Your task to perform on an android device: Open calendar and show me the third week of next month Image 0: 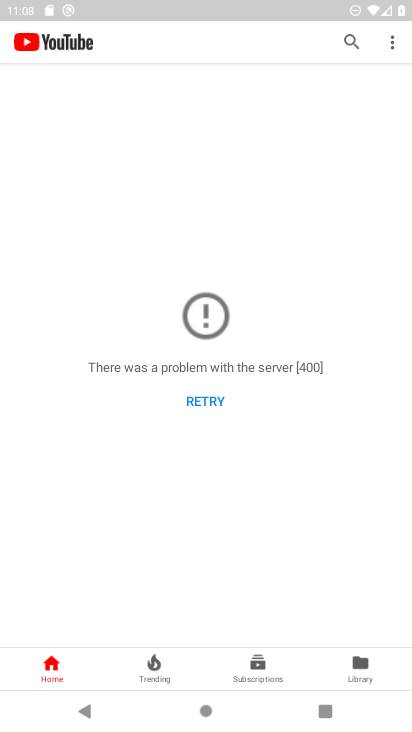
Step 0: press home button
Your task to perform on an android device: Open calendar and show me the third week of next month Image 1: 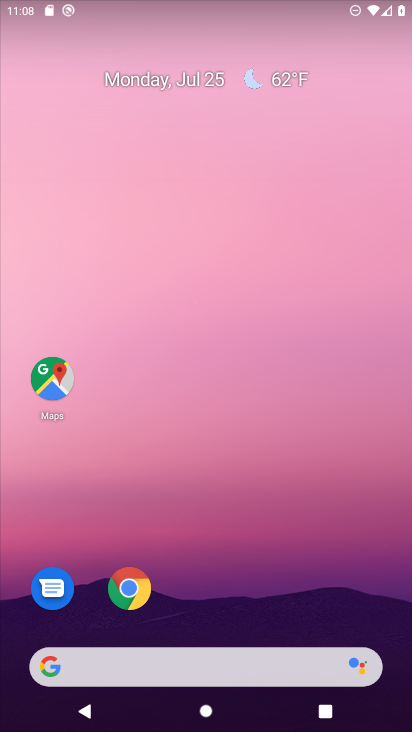
Step 1: drag from (107, 409) to (282, 116)
Your task to perform on an android device: Open calendar and show me the third week of next month Image 2: 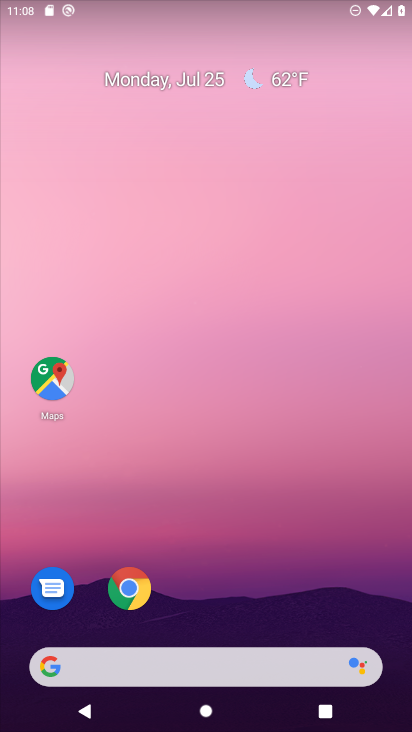
Step 2: drag from (197, 152) to (211, 96)
Your task to perform on an android device: Open calendar and show me the third week of next month Image 3: 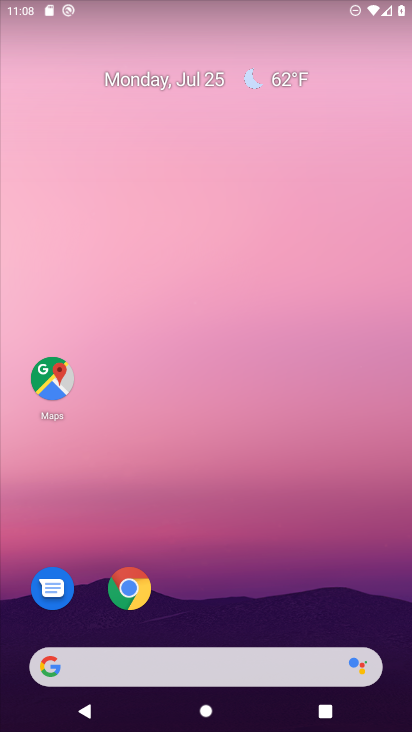
Step 3: drag from (40, 565) to (295, 104)
Your task to perform on an android device: Open calendar and show me the third week of next month Image 4: 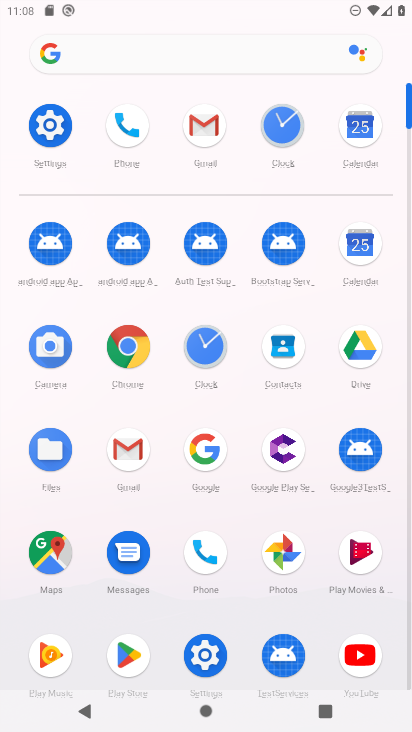
Step 4: click (366, 136)
Your task to perform on an android device: Open calendar and show me the third week of next month Image 5: 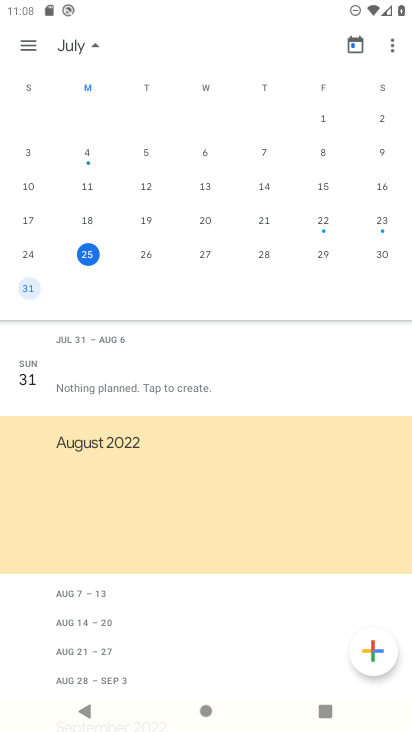
Step 5: drag from (401, 167) to (75, 76)
Your task to perform on an android device: Open calendar and show me the third week of next month Image 6: 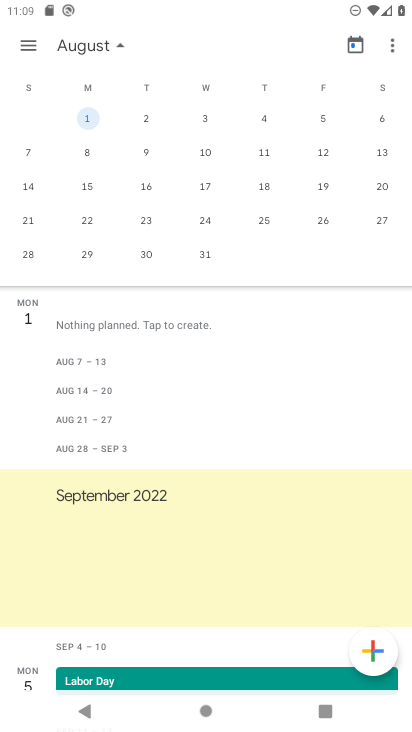
Step 6: click (85, 146)
Your task to perform on an android device: Open calendar and show me the third week of next month Image 7: 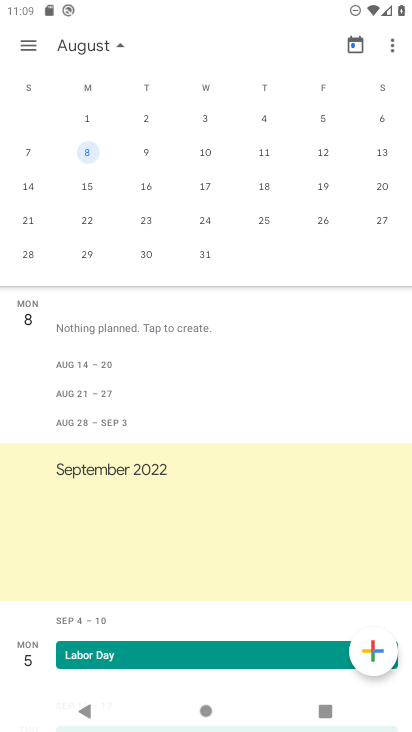
Step 7: click (147, 154)
Your task to perform on an android device: Open calendar and show me the third week of next month Image 8: 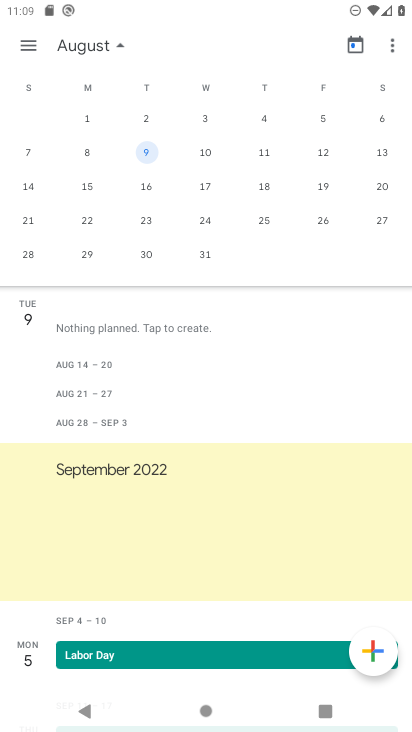
Step 8: click (201, 157)
Your task to perform on an android device: Open calendar and show me the third week of next month Image 9: 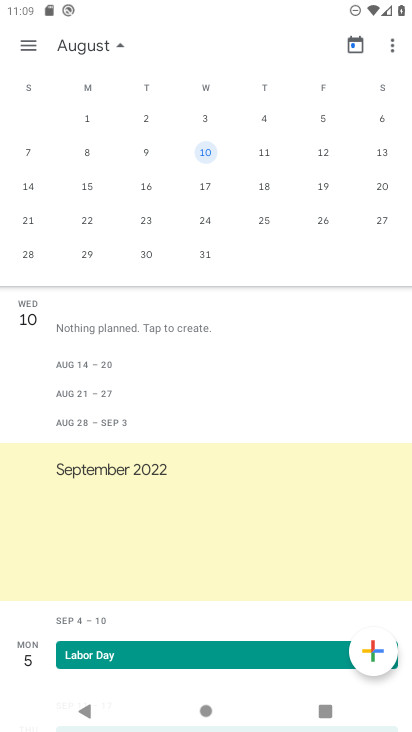
Step 9: click (266, 149)
Your task to perform on an android device: Open calendar and show me the third week of next month Image 10: 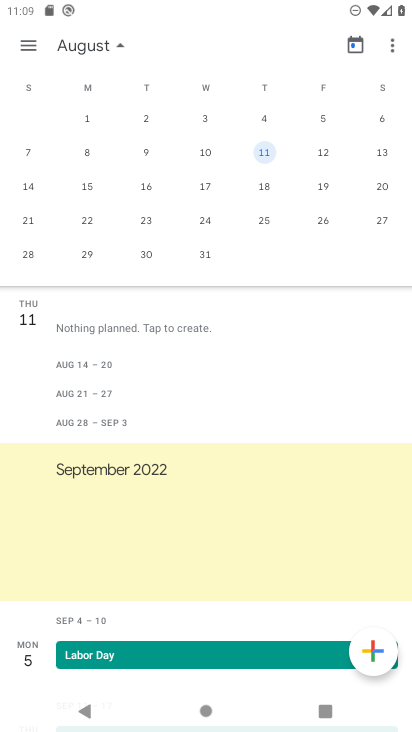
Step 10: click (320, 149)
Your task to perform on an android device: Open calendar and show me the third week of next month Image 11: 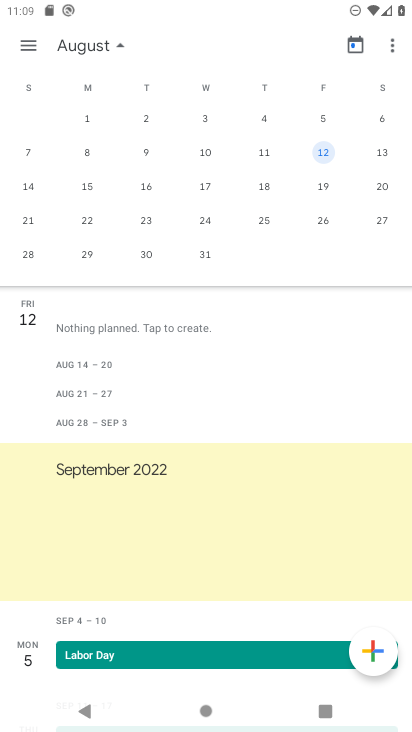
Step 11: task complete